Your task to perform on an android device: change notifications settings Image 0: 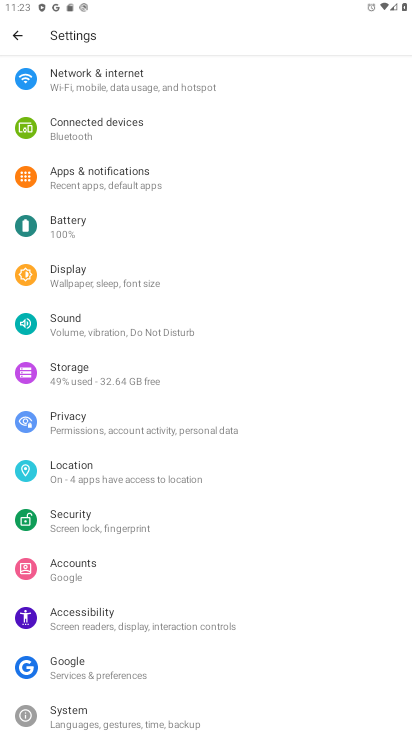
Step 0: click (98, 172)
Your task to perform on an android device: change notifications settings Image 1: 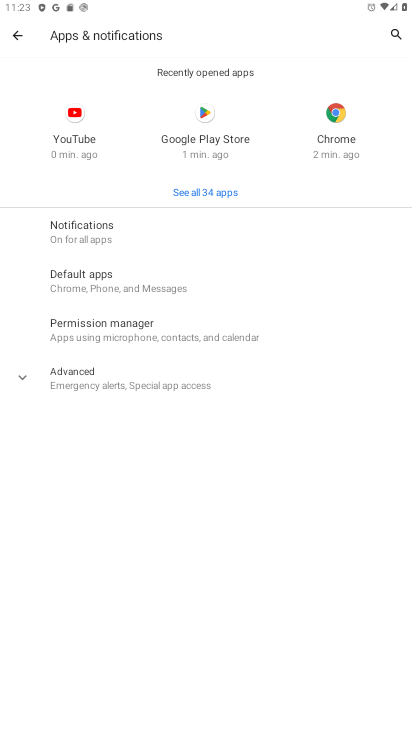
Step 1: click (96, 224)
Your task to perform on an android device: change notifications settings Image 2: 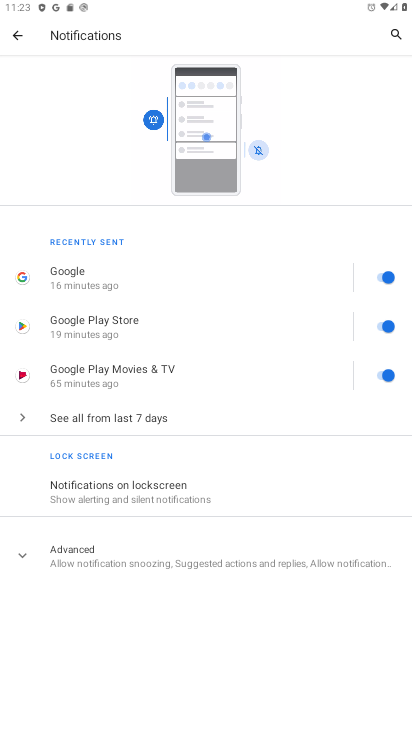
Step 2: click (111, 413)
Your task to perform on an android device: change notifications settings Image 3: 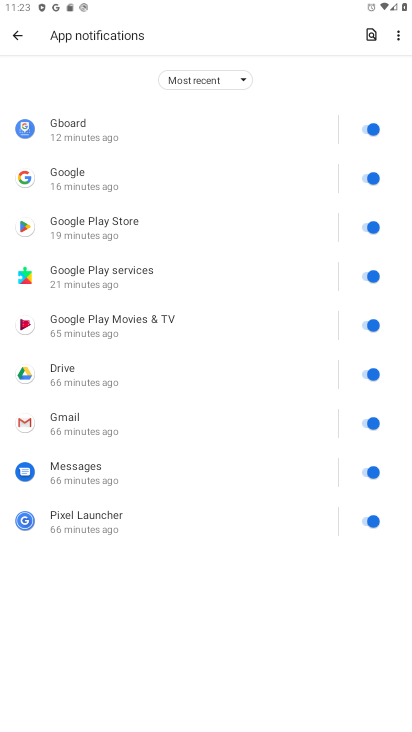
Step 3: click (243, 78)
Your task to perform on an android device: change notifications settings Image 4: 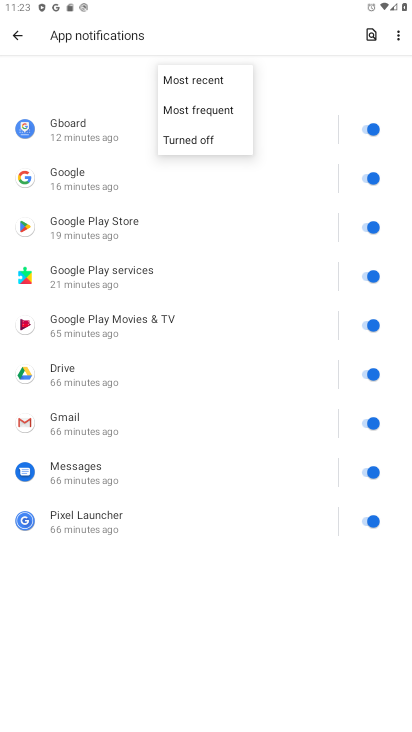
Step 4: click (181, 133)
Your task to perform on an android device: change notifications settings Image 5: 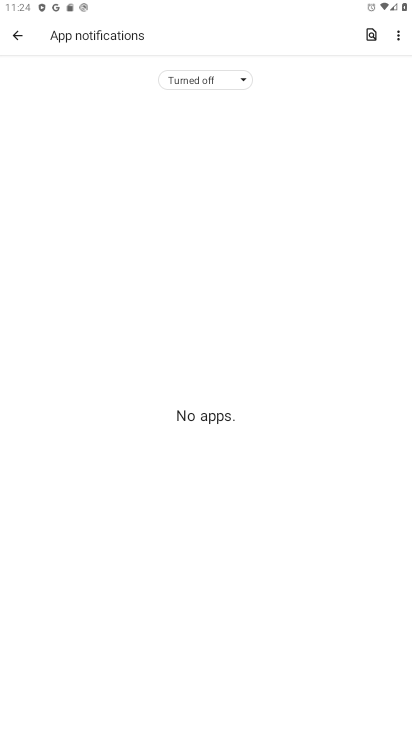
Step 5: task complete